Your task to perform on an android device: Is it going to rain this weekend? Image 0: 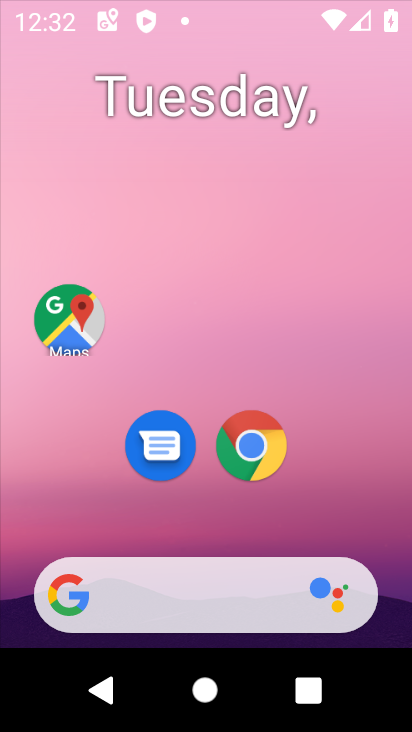
Step 0: click (378, 64)
Your task to perform on an android device: Is it going to rain this weekend? Image 1: 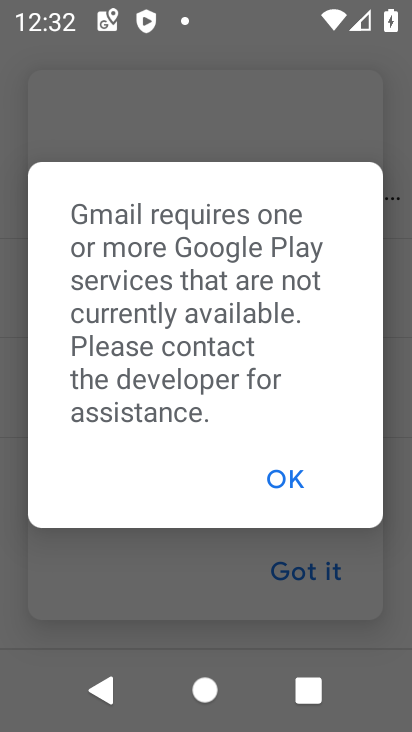
Step 1: press home button
Your task to perform on an android device: Is it going to rain this weekend? Image 2: 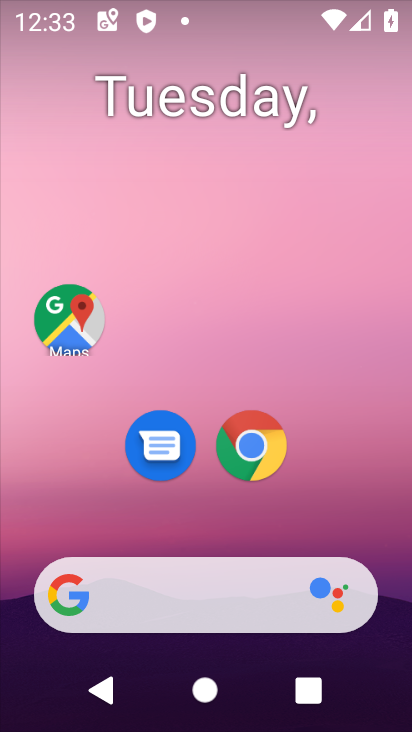
Step 2: drag from (349, 453) to (343, 2)
Your task to perform on an android device: Is it going to rain this weekend? Image 3: 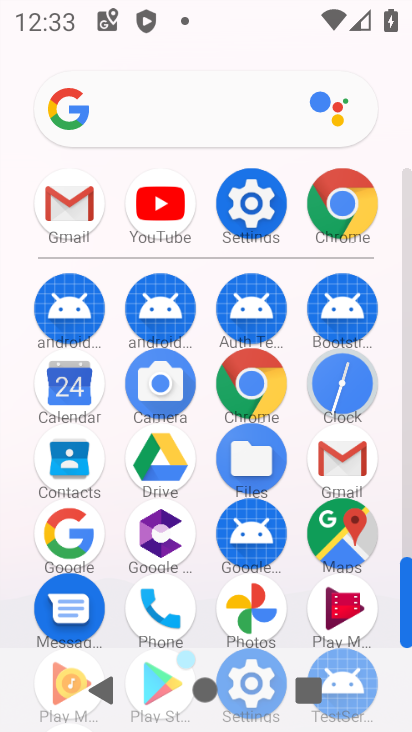
Step 3: click (64, 108)
Your task to perform on an android device: Is it going to rain this weekend? Image 4: 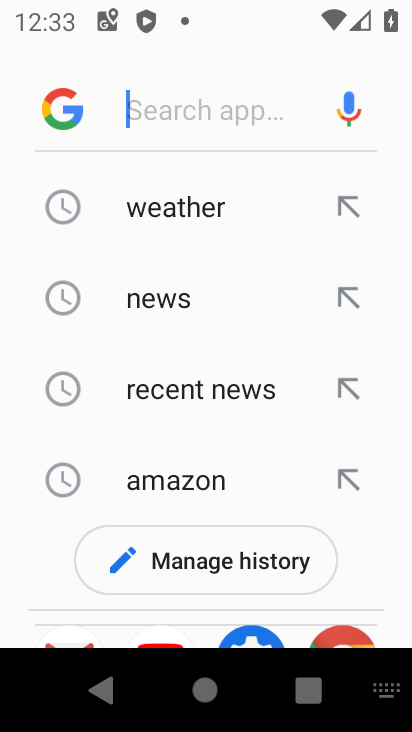
Step 4: click (64, 108)
Your task to perform on an android device: Is it going to rain this weekend? Image 5: 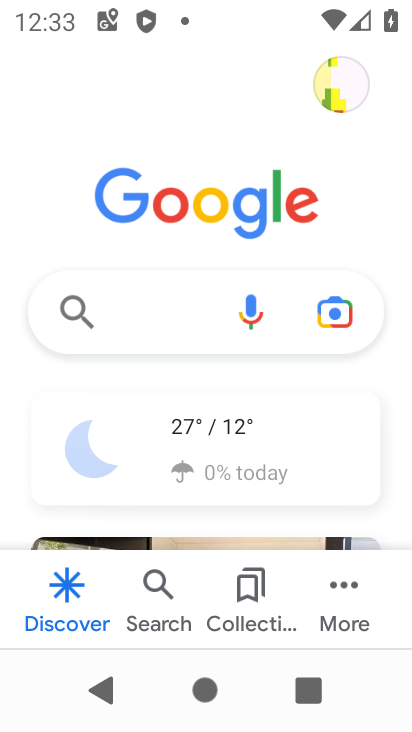
Step 5: click (230, 463)
Your task to perform on an android device: Is it going to rain this weekend? Image 6: 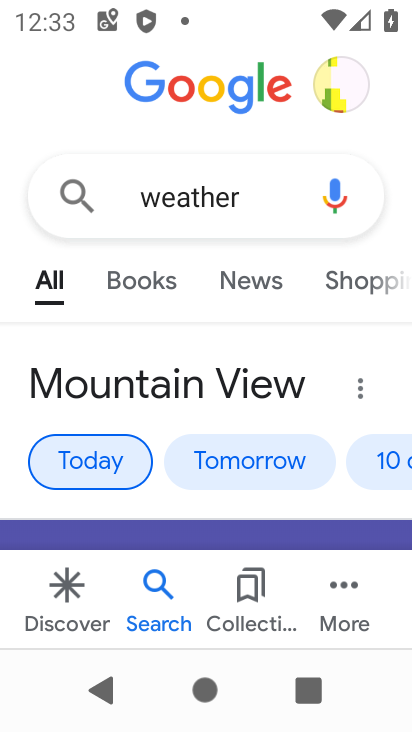
Step 6: drag from (287, 258) to (296, 135)
Your task to perform on an android device: Is it going to rain this weekend? Image 7: 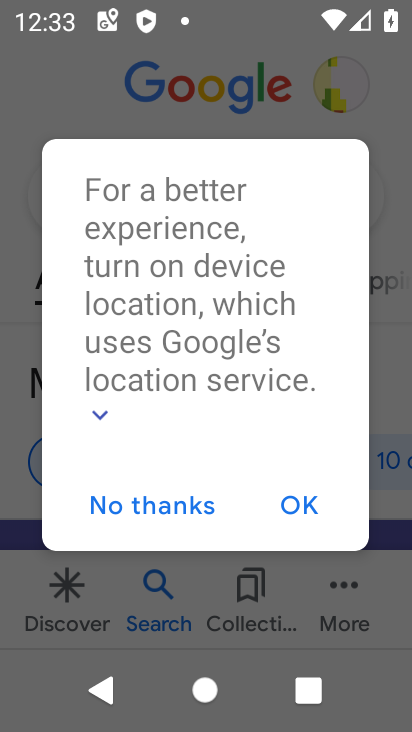
Step 7: click (155, 507)
Your task to perform on an android device: Is it going to rain this weekend? Image 8: 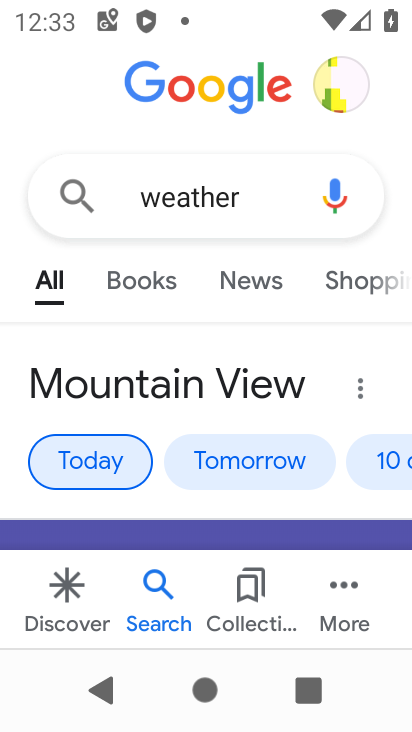
Step 8: task complete